Your task to perform on an android device: toggle data saver in the chrome app Image 0: 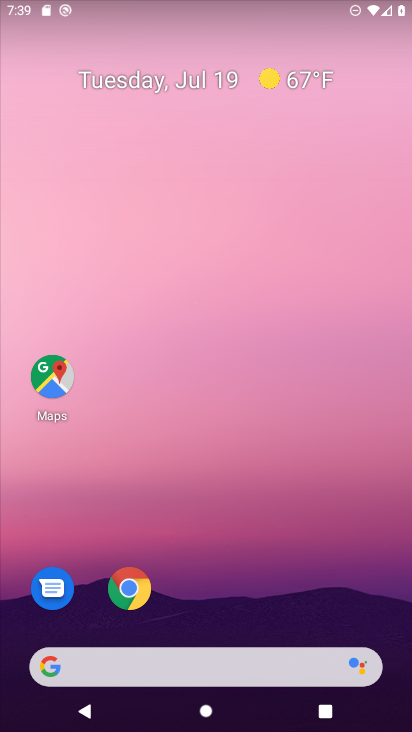
Step 0: drag from (301, 585) to (342, 111)
Your task to perform on an android device: toggle data saver in the chrome app Image 1: 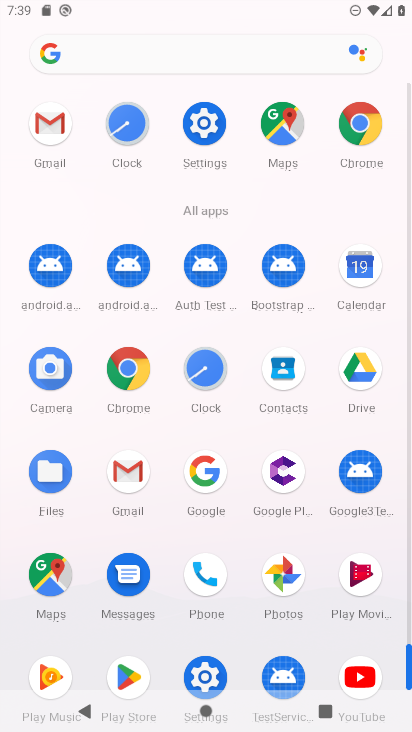
Step 1: click (136, 363)
Your task to perform on an android device: toggle data saver in the chrome app Image 2: 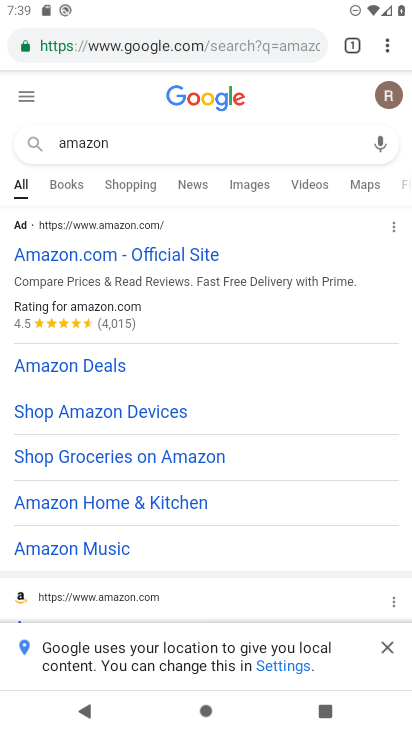
Step 2: click (388, 50)
Your task to perform on an android device: toggle data saver in the chrome app Image 3: 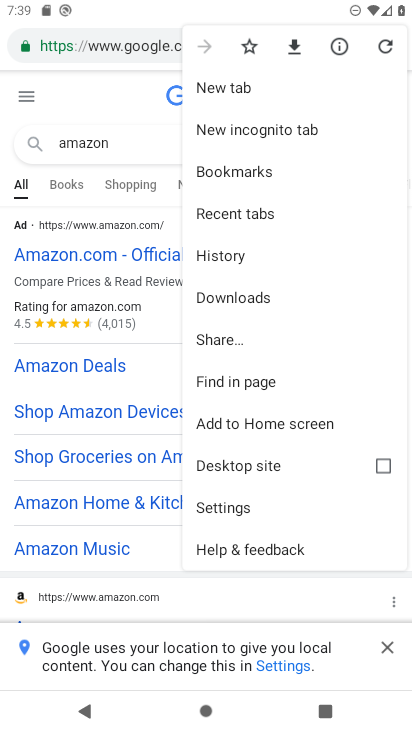
Step 3: click (257, 510)
Your task to perform on an android device: toggle data saver in the chrome app Image 4: 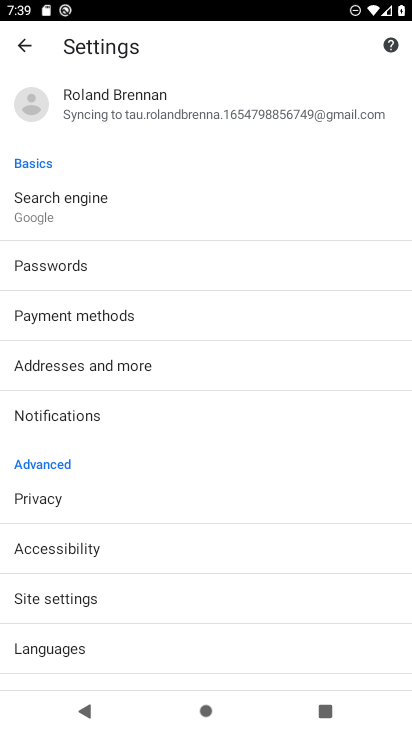
Step 4: drag from (290, 540) to (308, 466)
Your task to perform on an android device: toggle data saver in the chrome app Image 5: 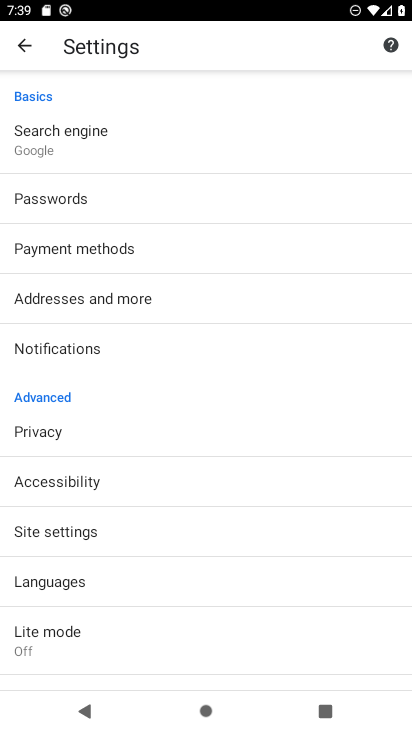
Step 5: drag from (302, 531) to (329, 386)
Your task to perform on an android device: toggle data saver in the chrome app Image 6: 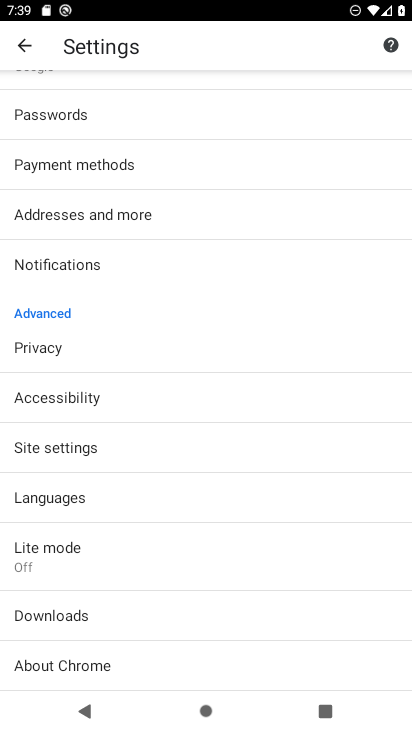
Step 6: click (283, 555)
Your task to perform on an android device: toggle data saver in the chrome app Image 7: 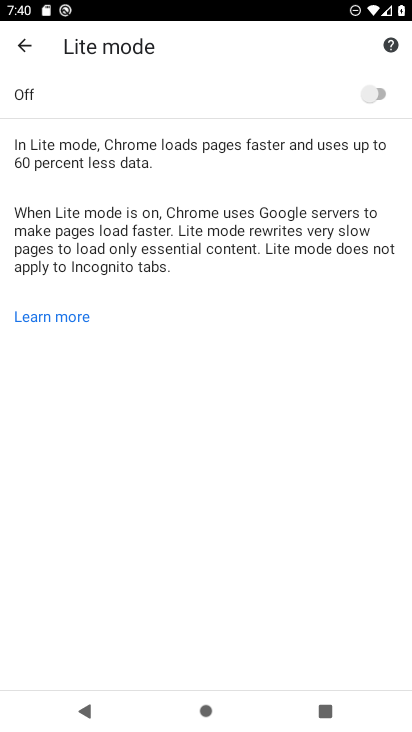
Step 7: click (367, 100)
Your task to perform on an android device: toggle data saver in the chrome app Image 8: 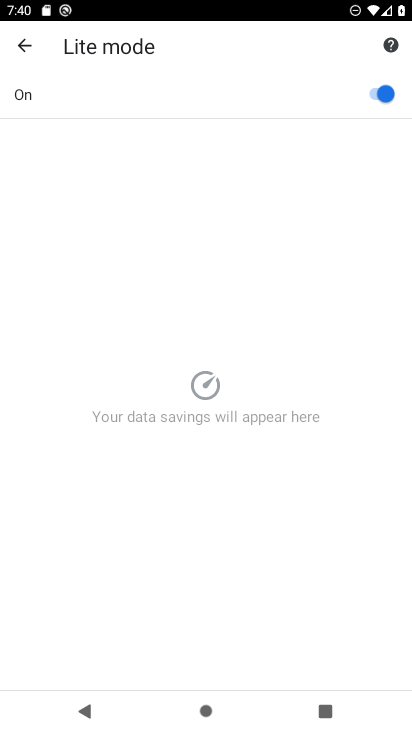
Step 8: task complete